Your task to perform on an android device: move a message to another label in the gmail app Image 0: 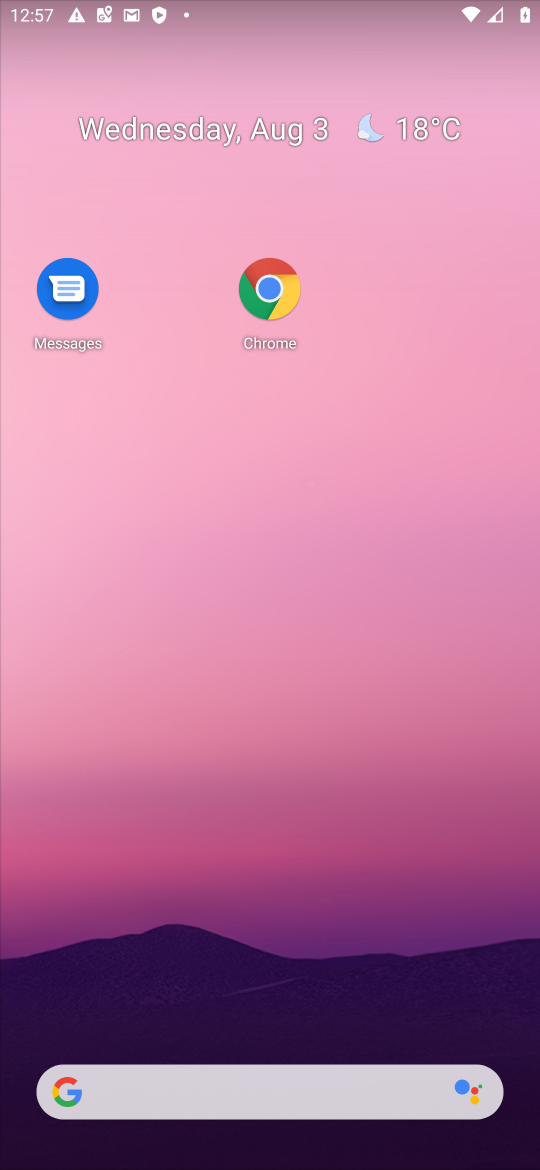
Step 0: drag from (270, 1046) to (187, 196)
Your task to perform on an android device: move a message to another label in the gmail app Image 1: 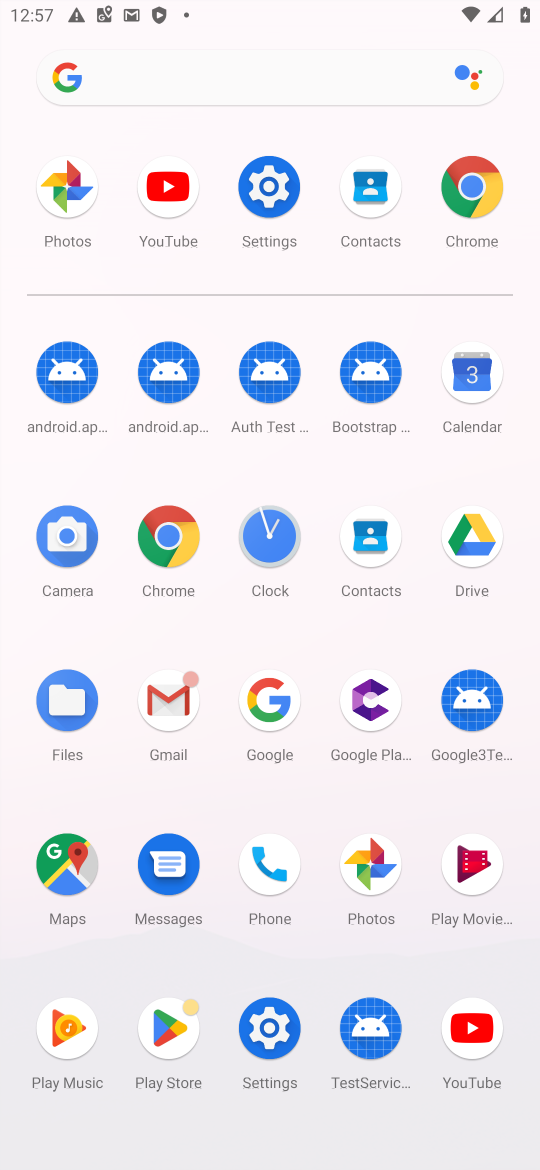
Step 1: click (185, 732)
Your task to perform on an android device: move a message to another label in the gmail app Image 2: 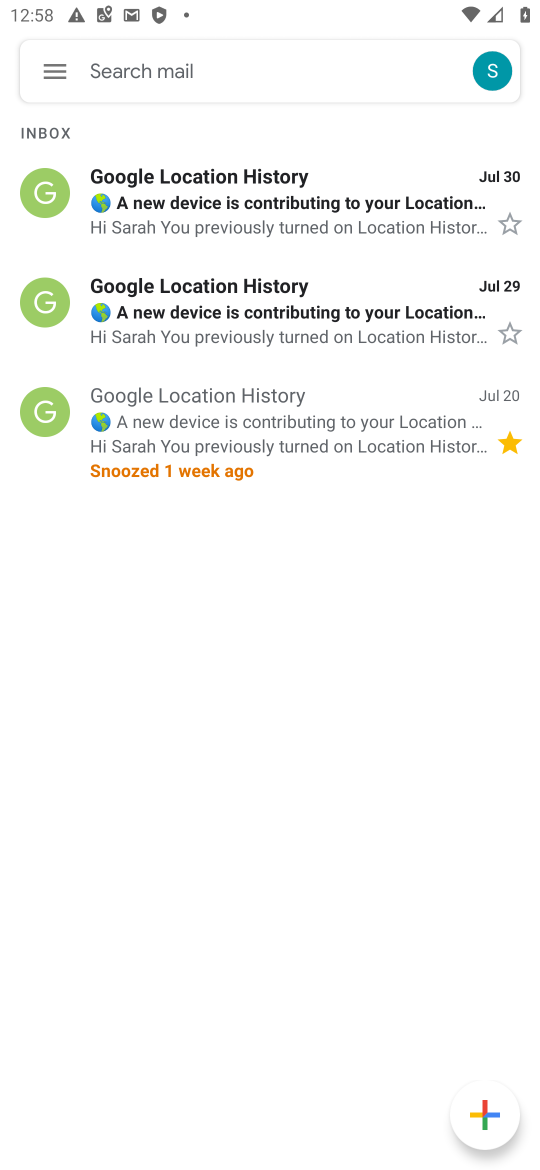
Step 2: task complete